Your task to perform on an android device: Search for seafood restaurants on Google Maps Image 0: 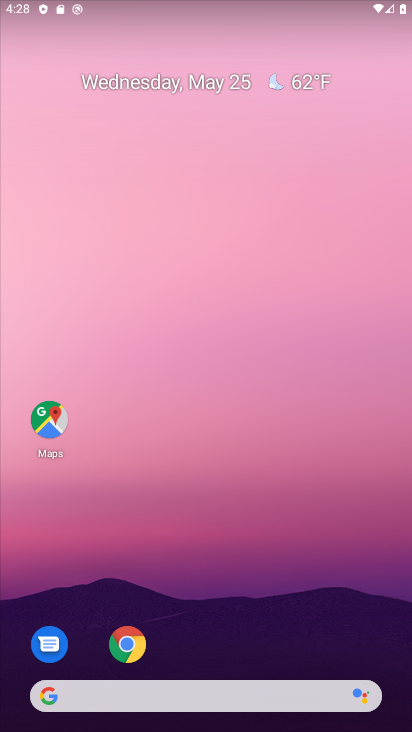
Step 0: click (44, 427)
Your task to perform on an android device: Search for seafood restaurants on Google Maps Image 1: 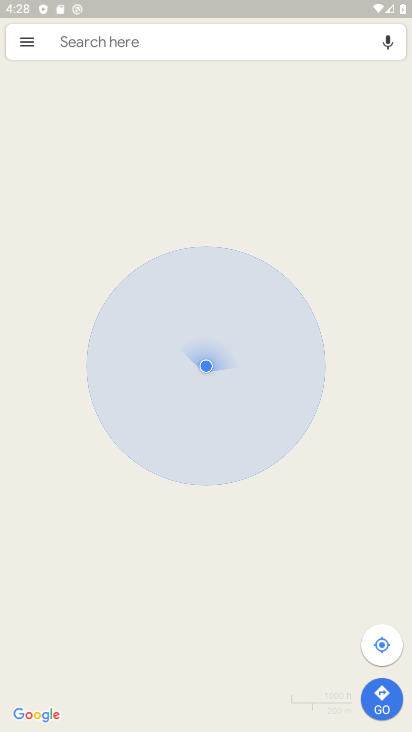
Step 1: click (128, 41)
Your task to perform on an android device: Search for seafood restaurants on Google Maps Image 2: 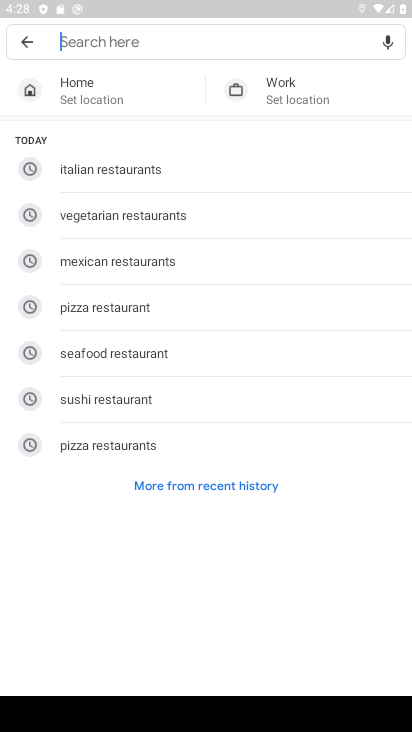
Step 2: click (84, 356)
Your task to perform on an android device: Search for seafood restaurants on Google Maps Image 3: 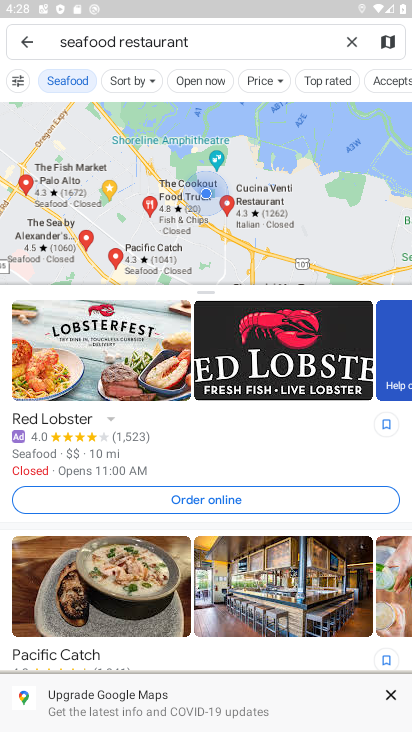
Step 3: task complete